Your task to perform on an android device: Go to CNN.com Image 0: 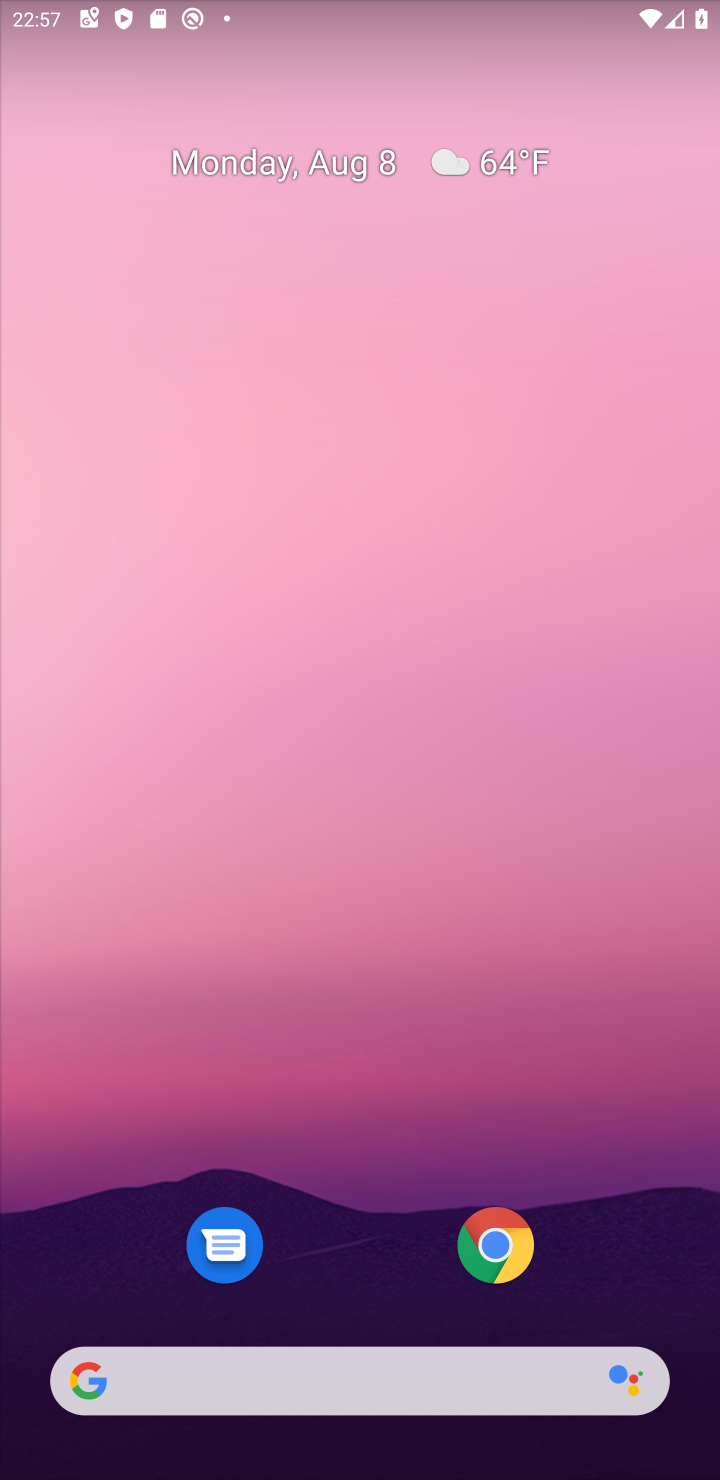
Step 0: click (488, 1246)
Your task to perform on an android device: Go to CNN.com Image 1: 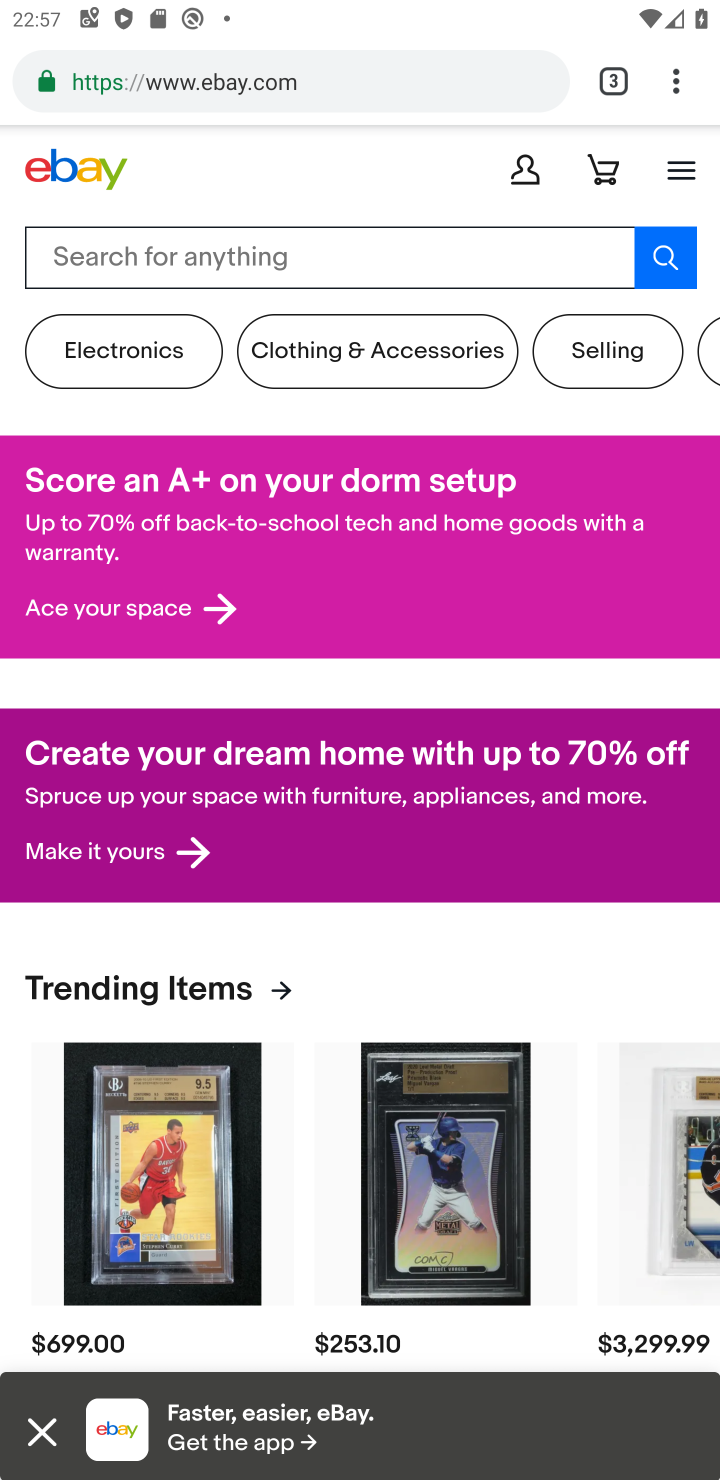
Step 1: click (668, 82)
Your task to perform on an android device: Go to CNN.com Image 2: 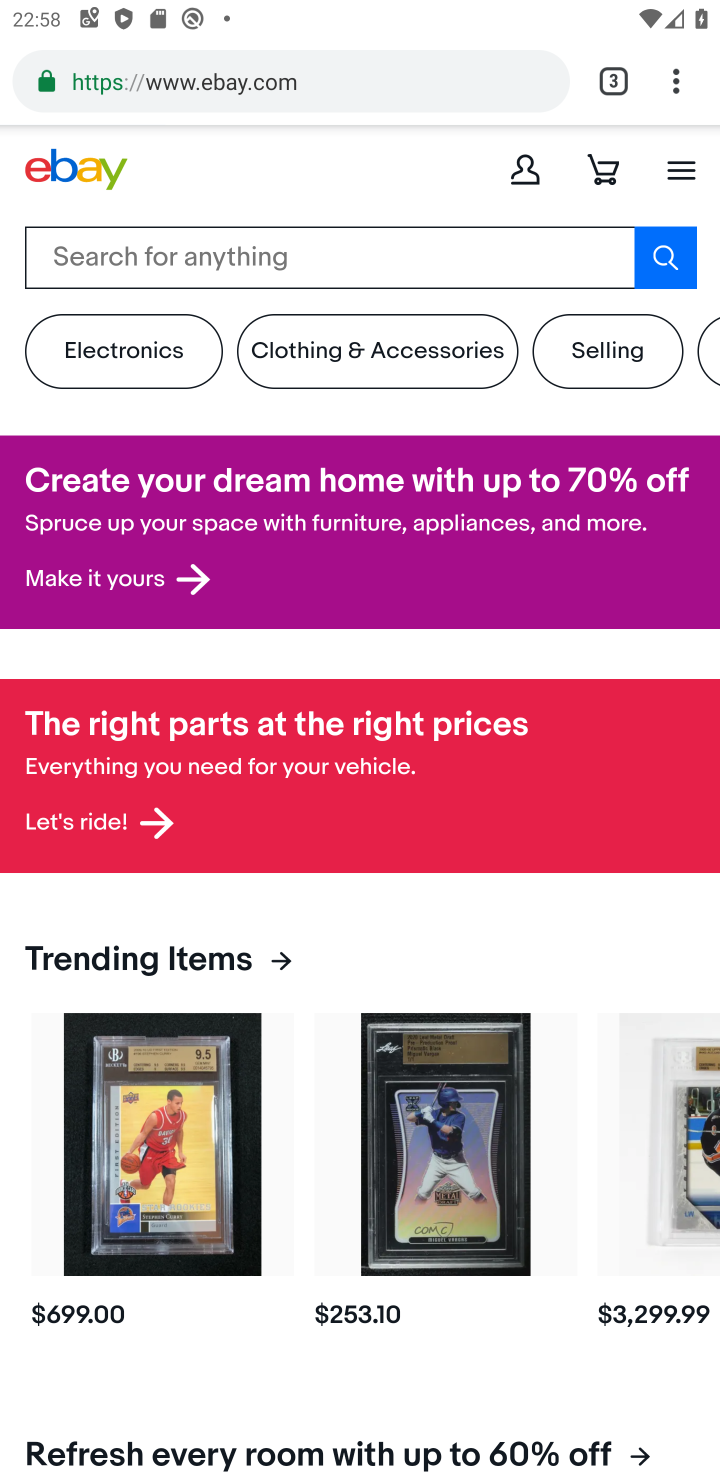
Step 2: click (651, 74)
Your task to perform on an android device: Go to CNN.com Image 3: 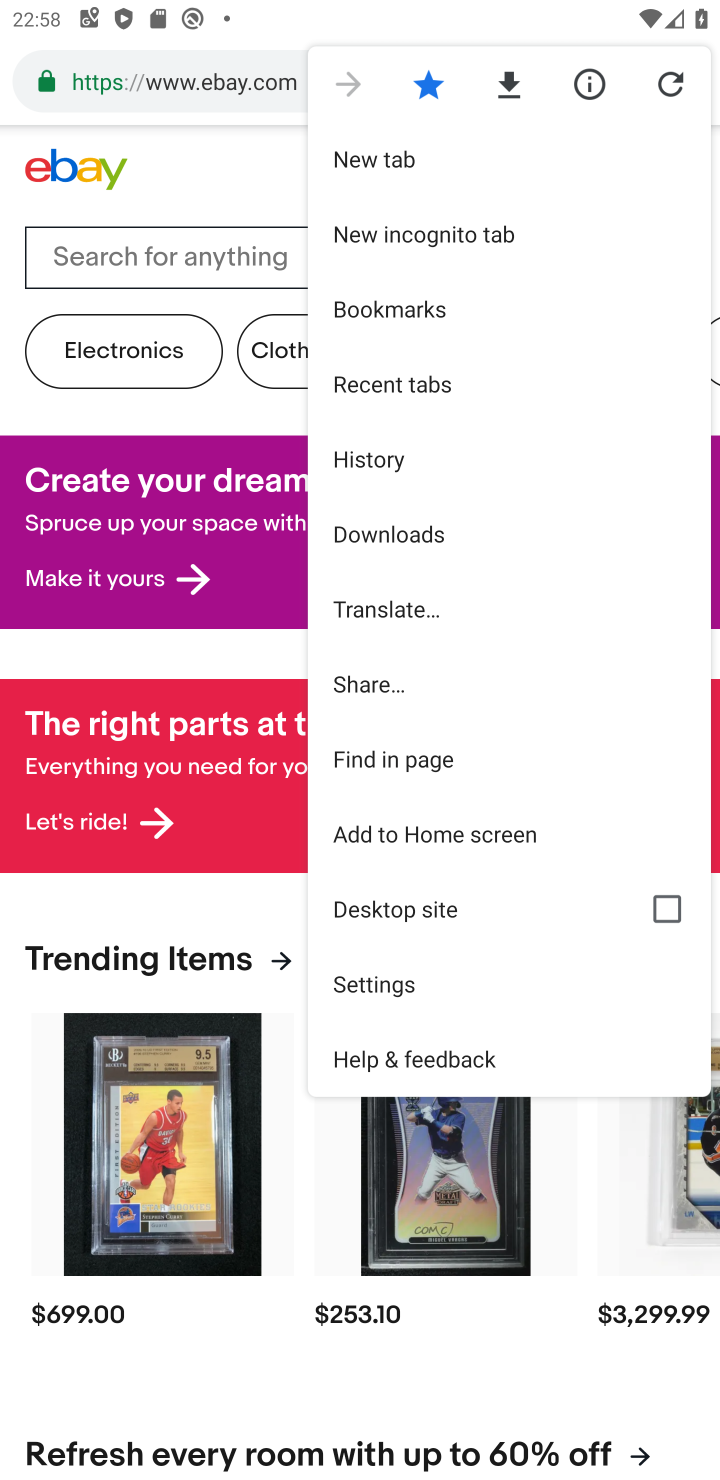
Step 3: click (397, 157)
Your task to perform on an android device: Go to CNN.com Image 4: 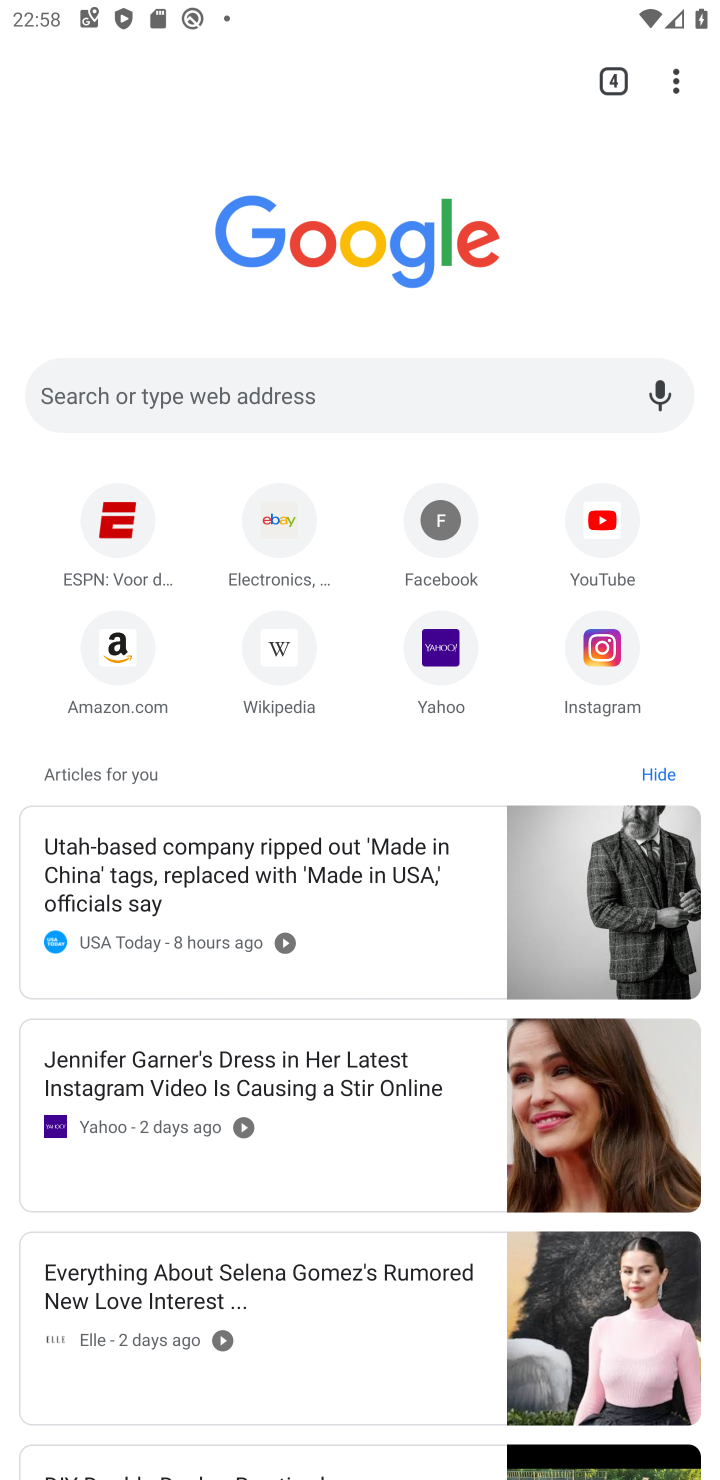
Step 4: click (280, 401)
Your task to perform on an android device: Go to CNN.com Image 5: 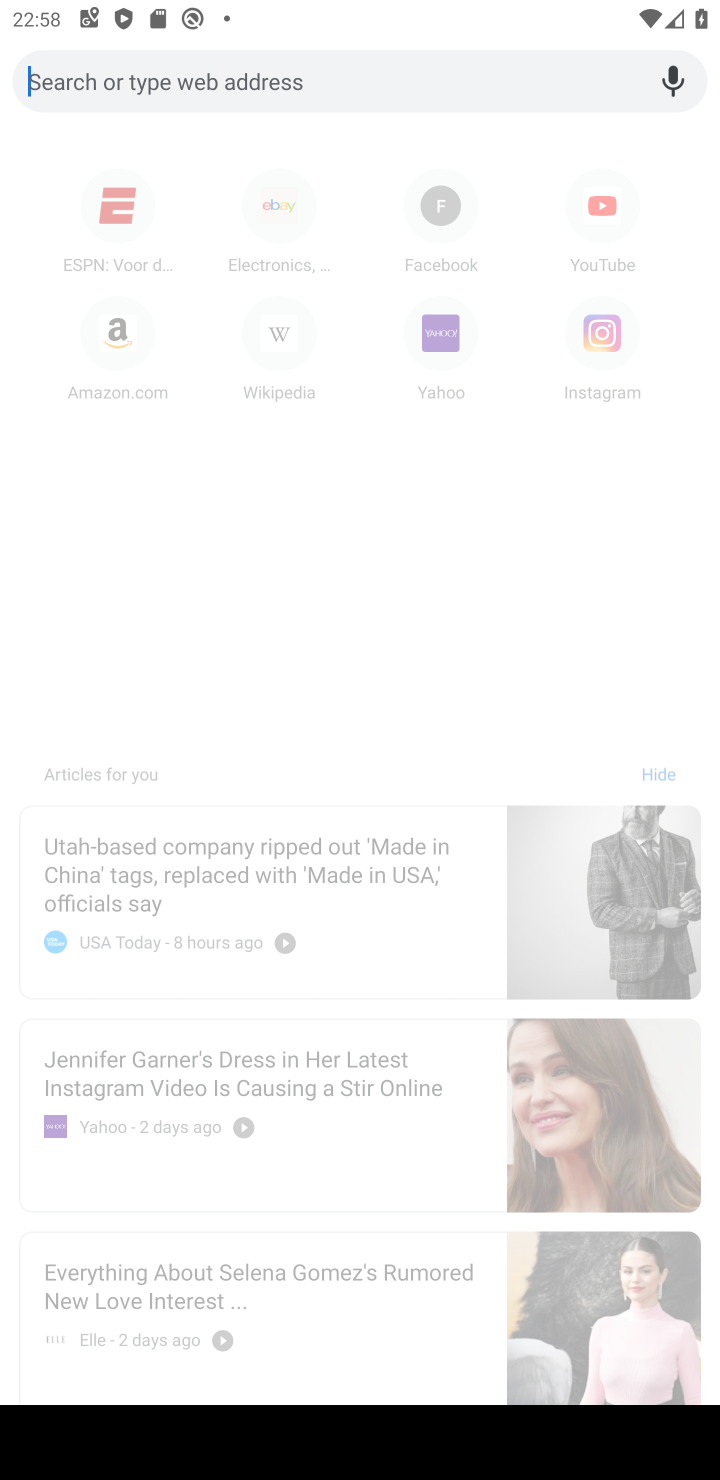
Step 5: type "cnn.com"
Your task to perform on an android device: Go to CNN.com Image 6: 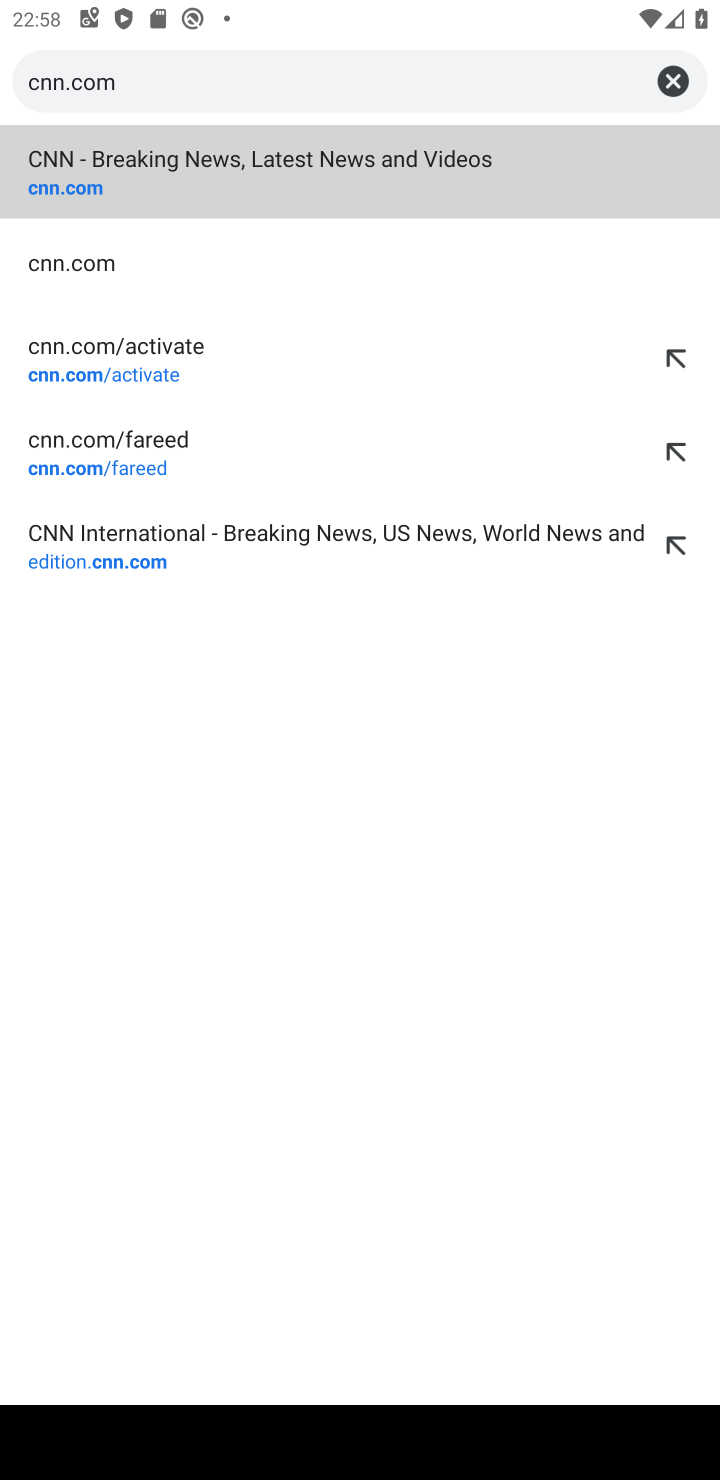
Step 6: click (109, 270)
Your task to perform on an android device: Go to CNN.com Image 7: 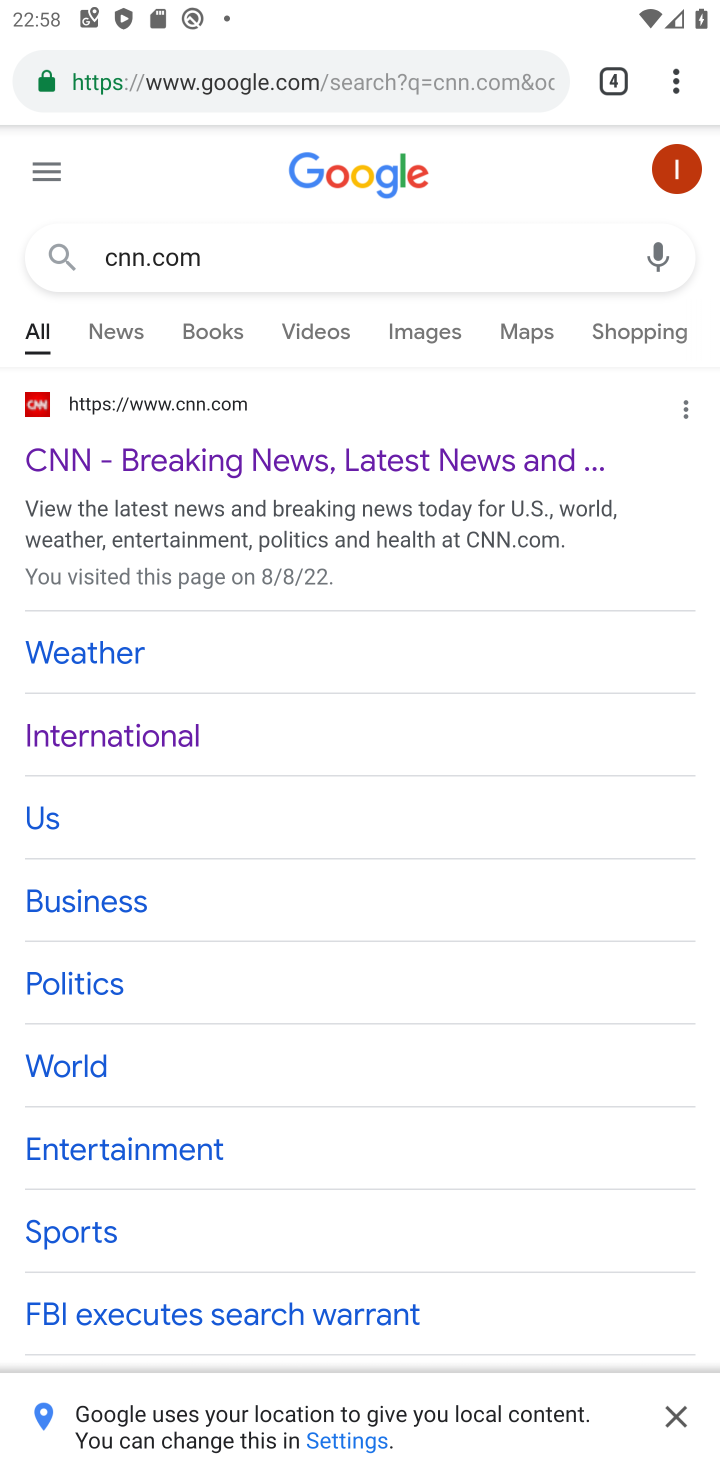
Step 7: click (280, 448)
Your task to perform on an android device: Go to CNN.com Image 8: 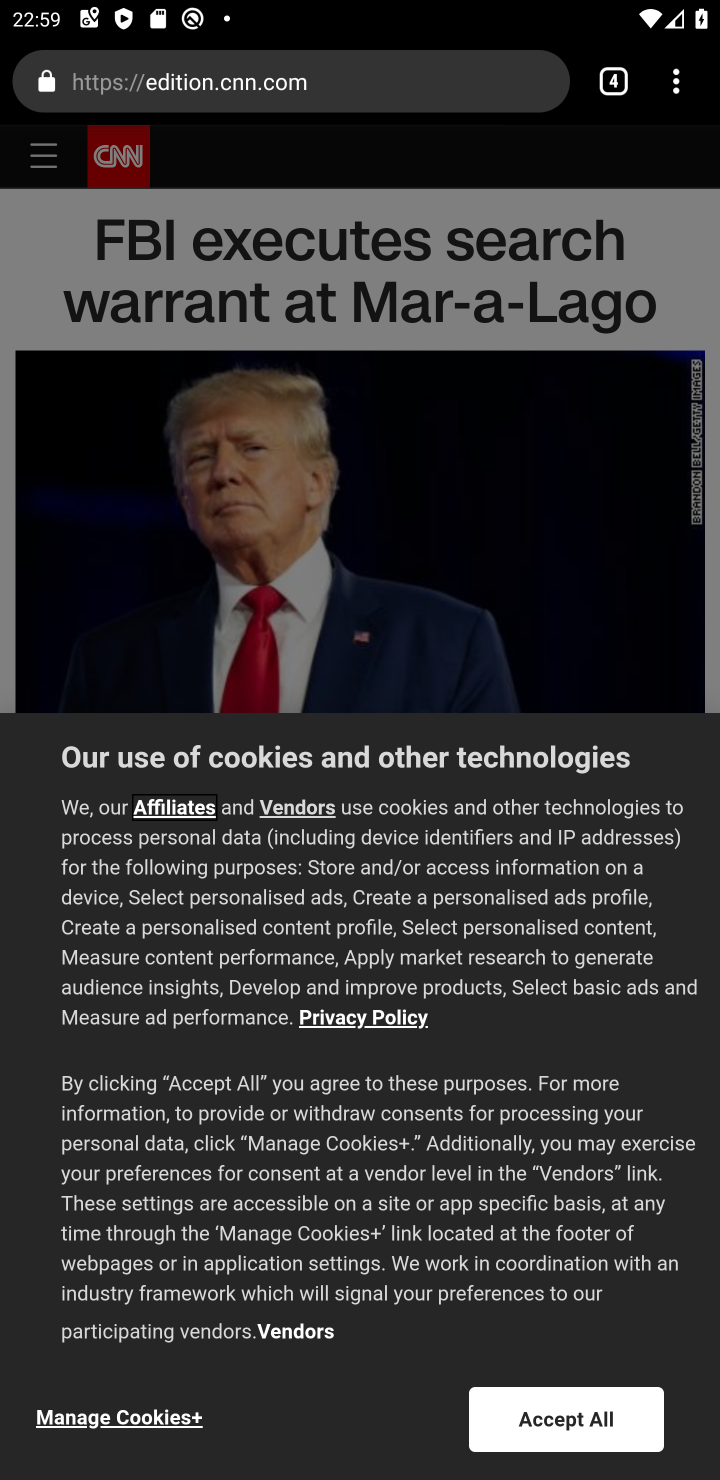
Step 8: click (581, 1419)
Your task to perform on an android device: Go to CNN.com Image 9: 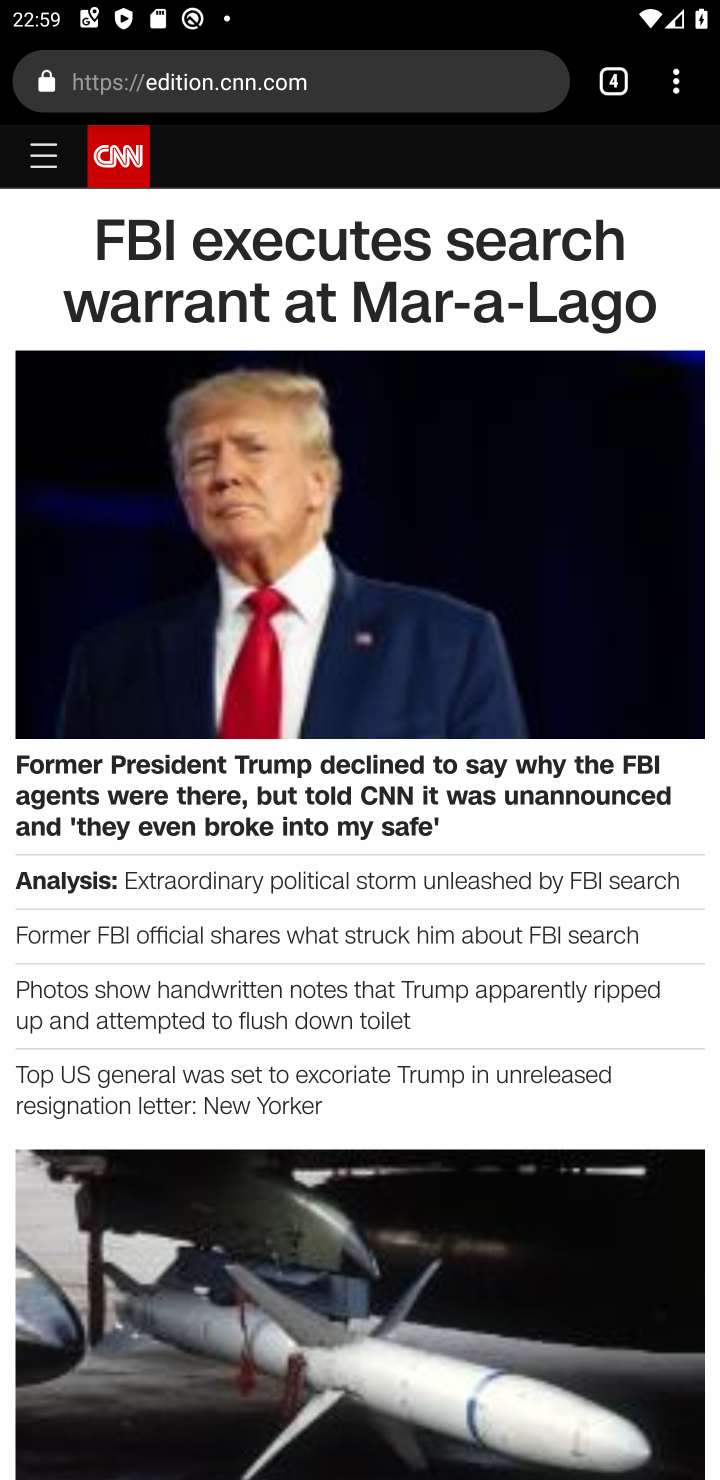
Step 9: task complete